Your task to perform on an android device: turn on improve location accuracy Image 0: 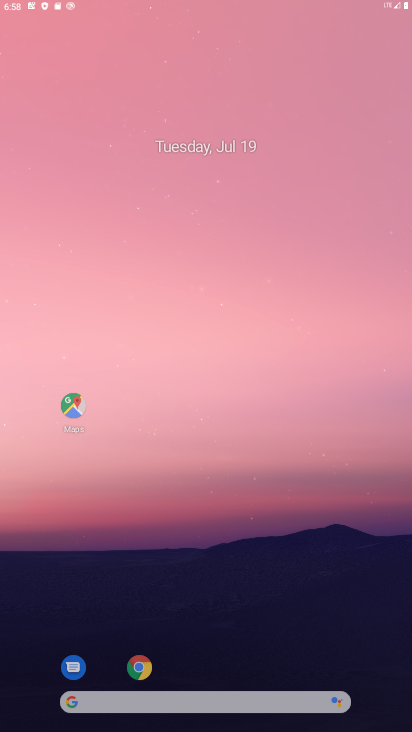
Step 0: drag from (323, 640) to (170, 20)
Your task to perform on an android device: turn on improve location accuracy Image 1: 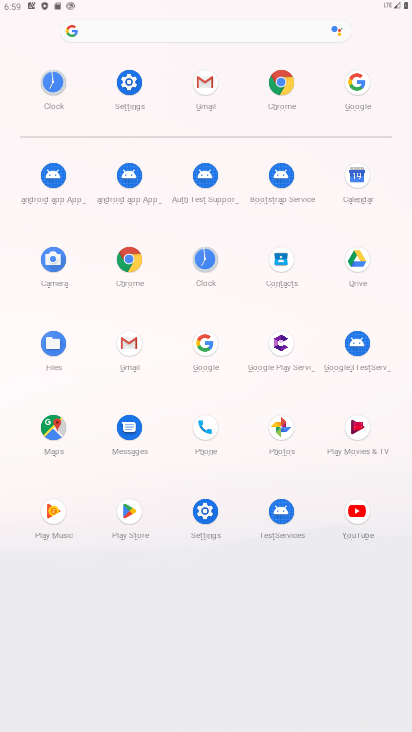
Step 1: click (124, 75)
Your task to perform on an android device: turn on improve location accuracy Image 2: 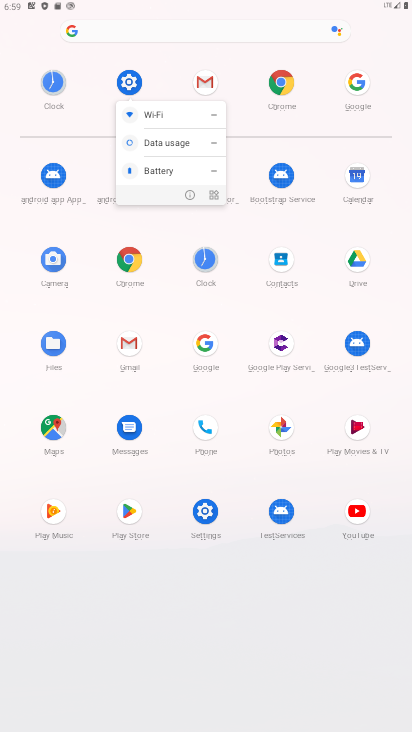
Step 2: click (124, 75)
Your task to perform on an android device: turn on improve location accuracy Image 3: 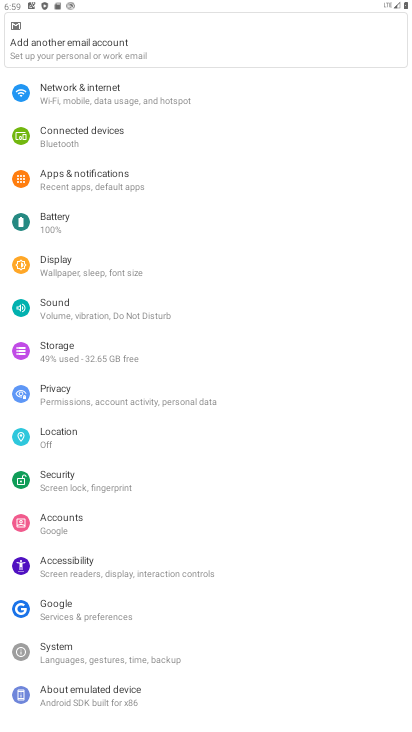
Step 3: click (60, 445)
Your task to perform on an android device: turn on improve location accuracy Image 4: 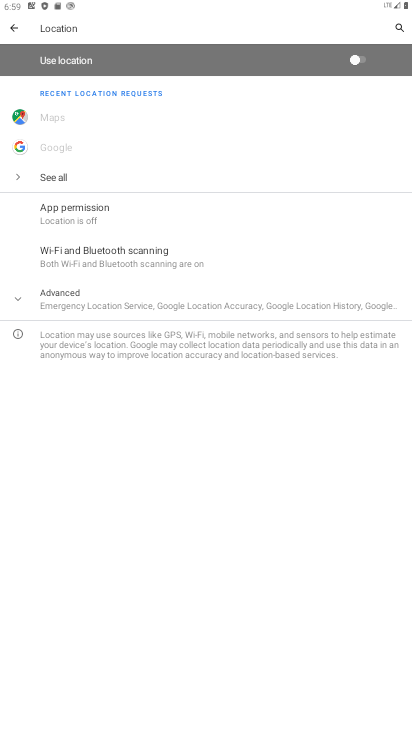
Step 4: click (56, 287)
Your task to perform on an android device: turn on improve location accuracy Image 5: 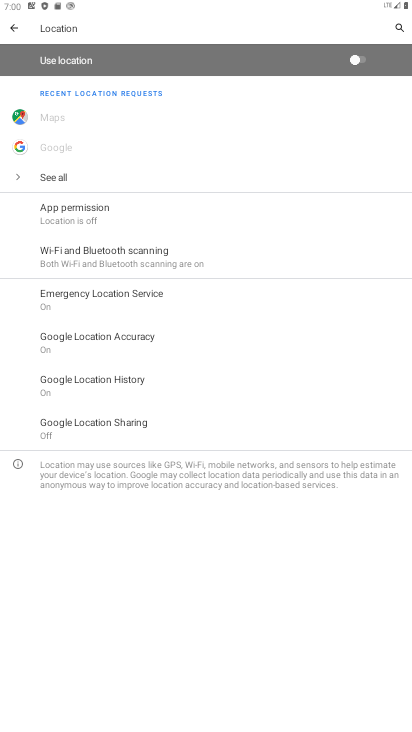
Step 5: click (103, 340)
Your task to perform on an android device: turn on improve location accuracy Image 6: 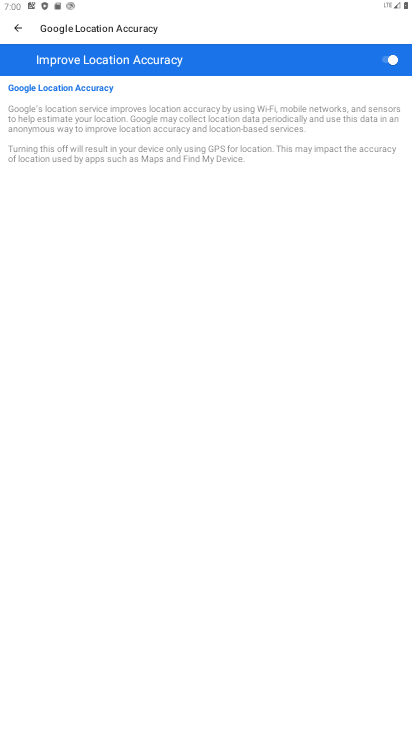
Step 6: task complete